Your task to perform on an android device: Search for sushi restaurants on Maps Image 0: 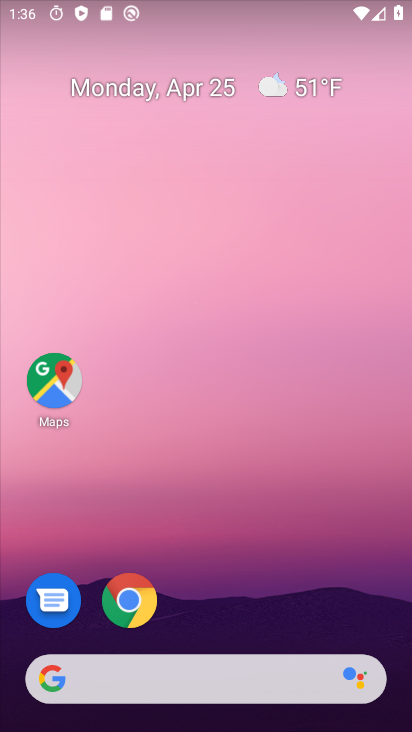
Step 0: press home button
Your task to perform on an android device: Search for sushi restaurants on Maps Image 1: 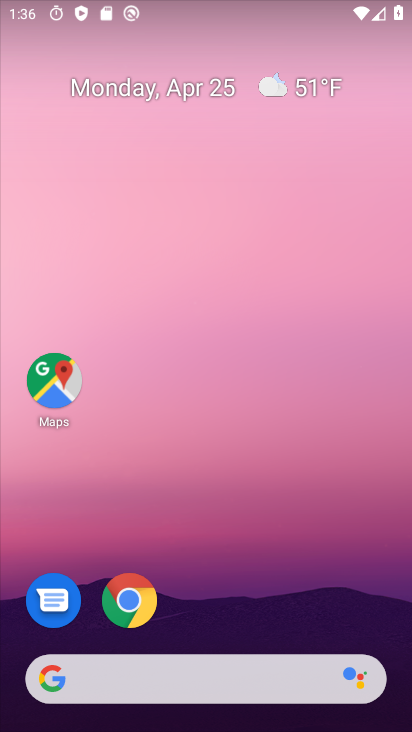
Step 1: drag from (165, 687) to (283, 277)
Your task to perform on an android device: Search for sushi restaurants on Maps Image 2: 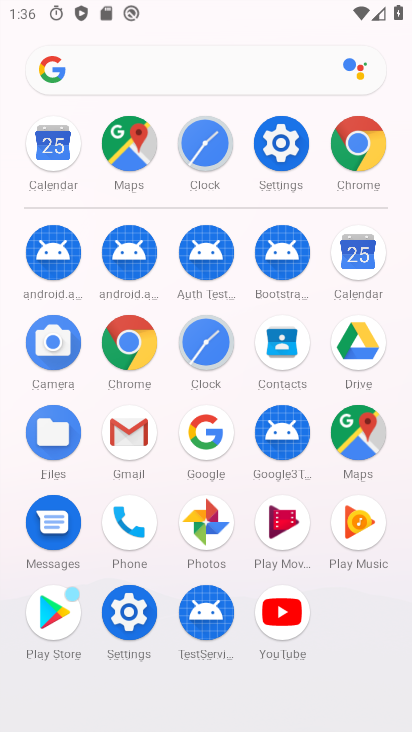
Step 2: click (124, 161)
Your task to perform on an android device: Search for sushi restaurants on Maps Image 3: 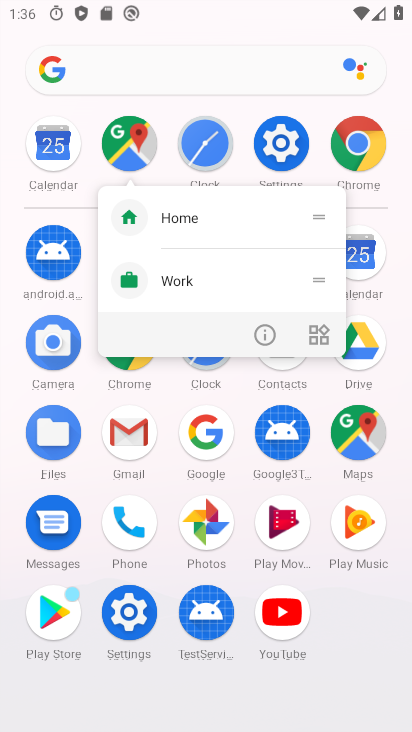
Step 3: click (130, 158)
Your task to perform on an android device: Search for sushi restaurants on Maps Image 4: 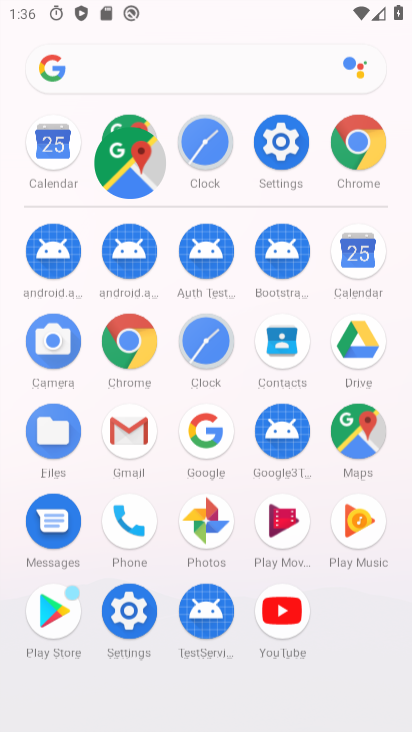
Step 4: click (130, 144)
Your task to perform on an android device: Search for sushi restaurants on Maps Image 5: 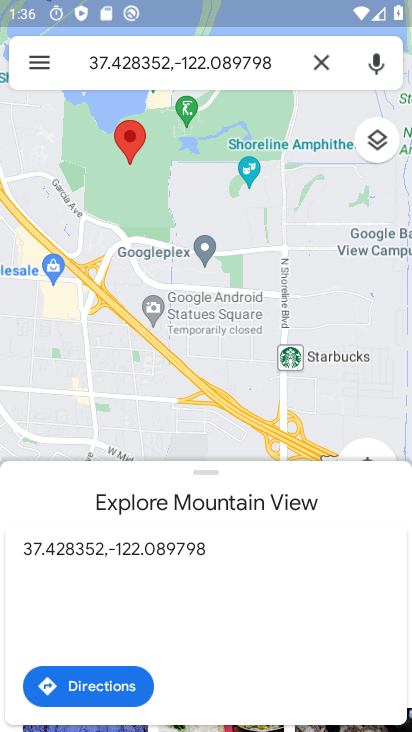
Step 5: click (153, 57)
Your task to perform on an android device: Search for sushi restaurants on Maps Image 6: 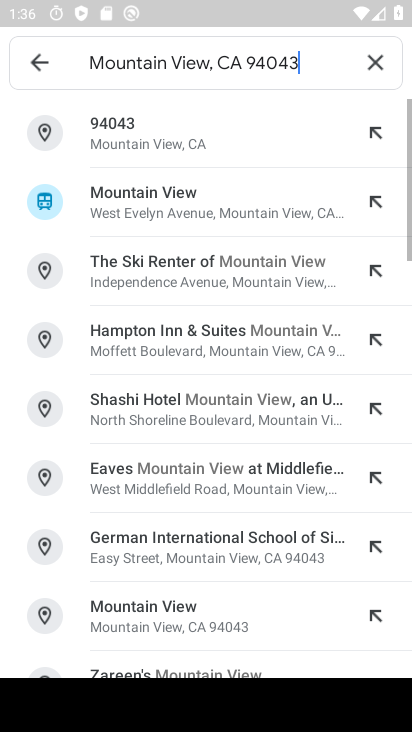
Step 6: click (376, 58)
Your task to perform on an android device: Search for sushi restaurants on Maps Image 7: 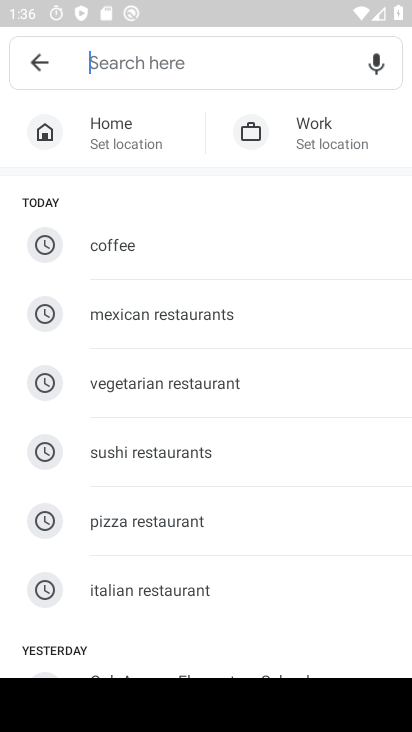
Step 7: click (156, 454)
Your task to perform on an android device: Search for sushi restaurants on Maps Image 8: 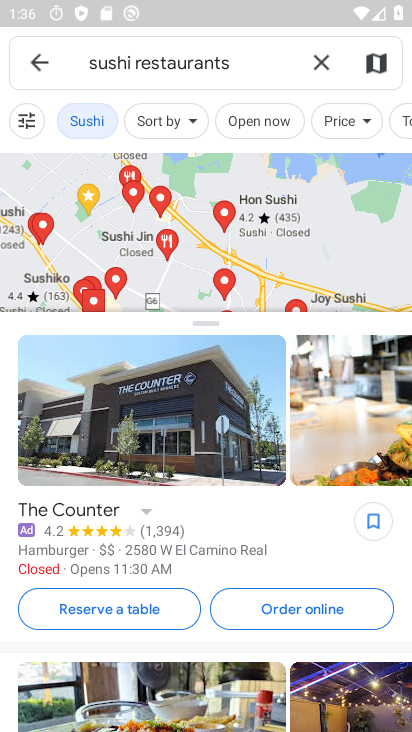
Step 8: task complete